Your task to perform on an android device: Go to settings Image 0: 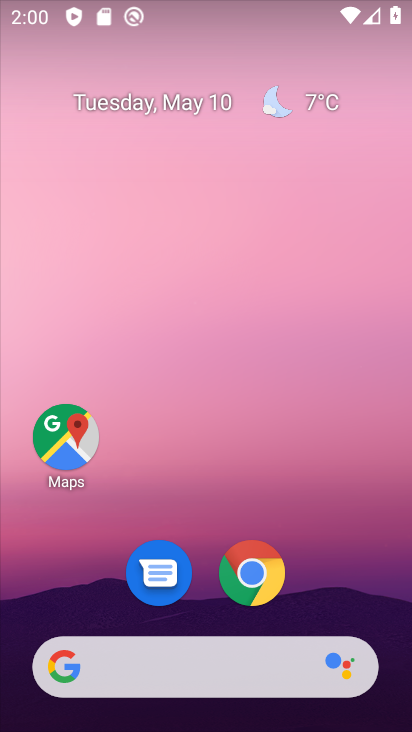
Step 0: drag from (94, 634) to (255, 101)
Your task to perform on an android device: Go to settings Image 1: 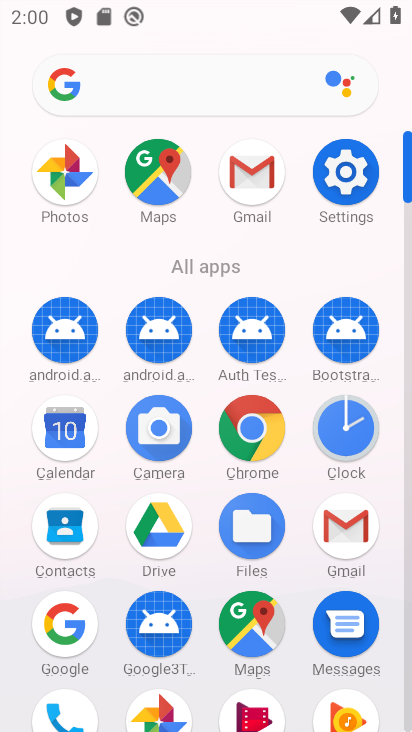
Step 1: click (346, 173)
Your task to perform on an android device: Go to settings Image 2: 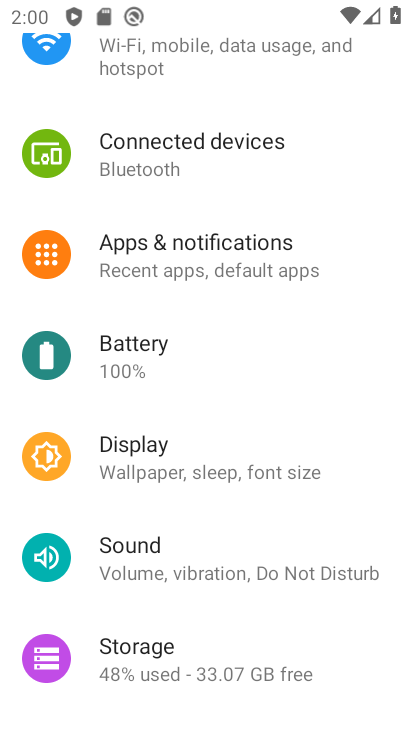
Step 2: task complete